Your task to perform on an android device: toggle data saver in the chrome app Image 0: 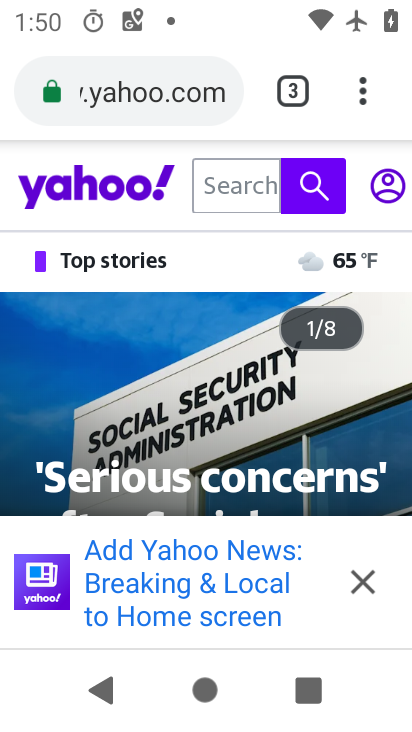
Step 0: press home button
Your task to perform on an android device: toggle data saver in the chrome app Image 1: 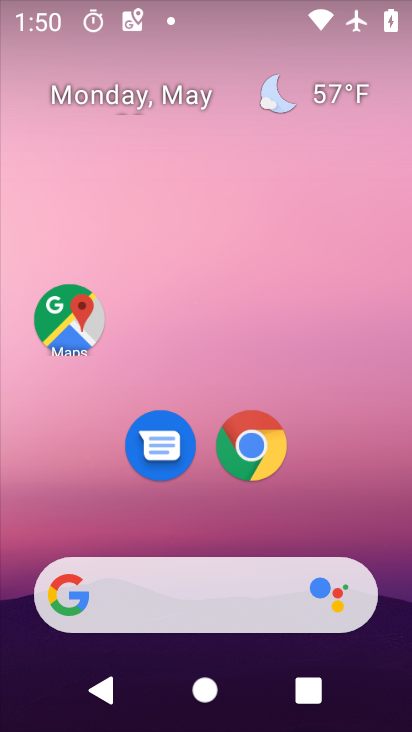
Step 1: click (248, 446)
Your task to perform on an android device: toggle data saver in the chrome app Image 2: 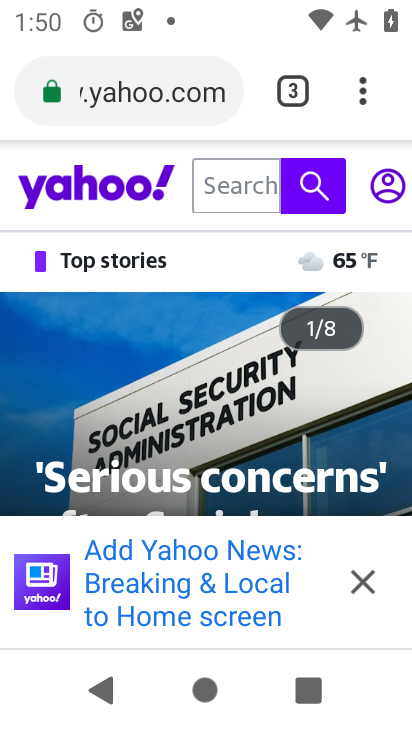
Step 2: click (352, 71)
Your task to perform on an android device: toggle data saver in the chrome app Image 3: 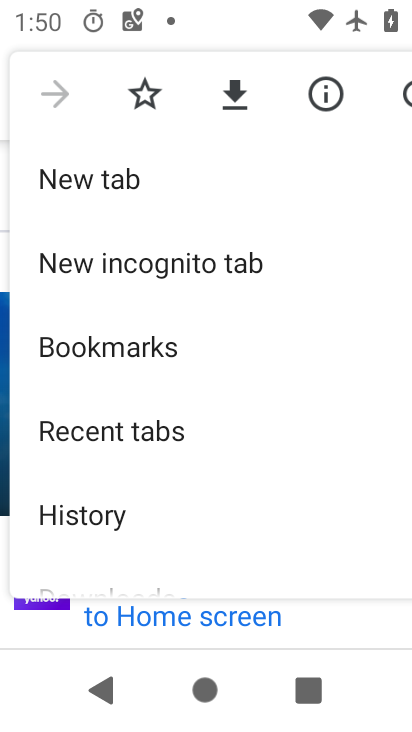
Step 3: drag from (270, 569) to (294, 82)
Your task to perform on an android device: toggle data saver in the chrome app Image 4: 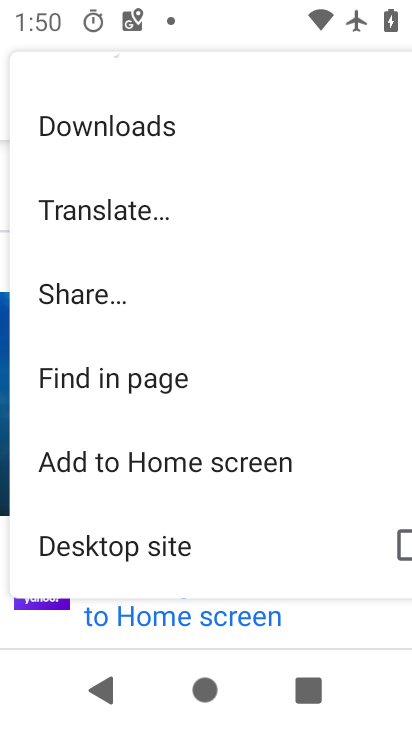
Step 4: drag from (222, 527) to (197, 204)
Your task to perform on an android device: toggle data saver in the chrome app Image 5: 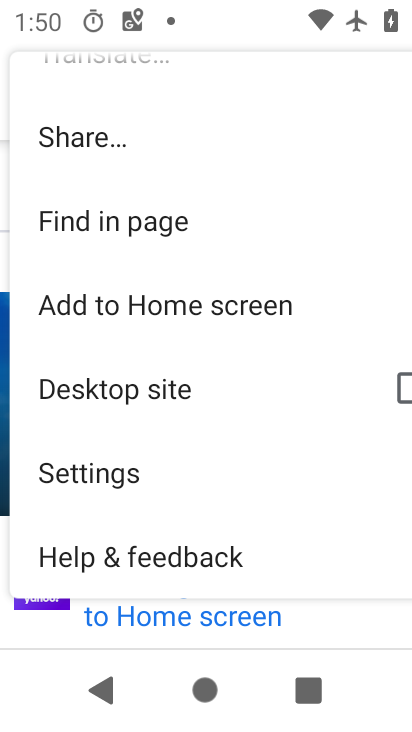
Step 5: click (125, 476)
Your task to perform on an android device: toggle data saver in the chrome app Image 6: 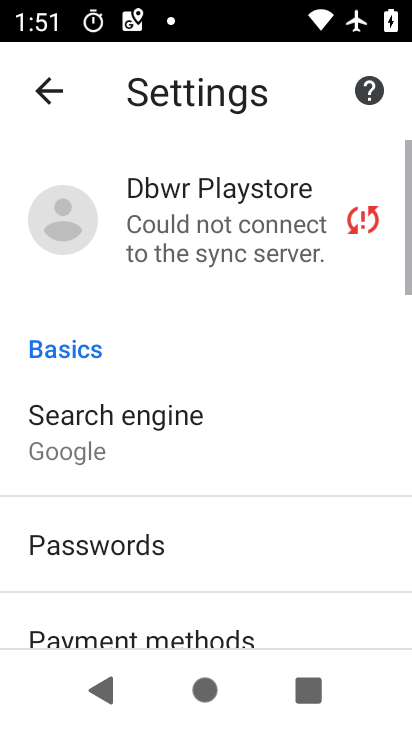
Step 6: drag from (206, 542) to (188, 118)
Your task to perform on an android device: toggle data saver in the chrome app Image 7: 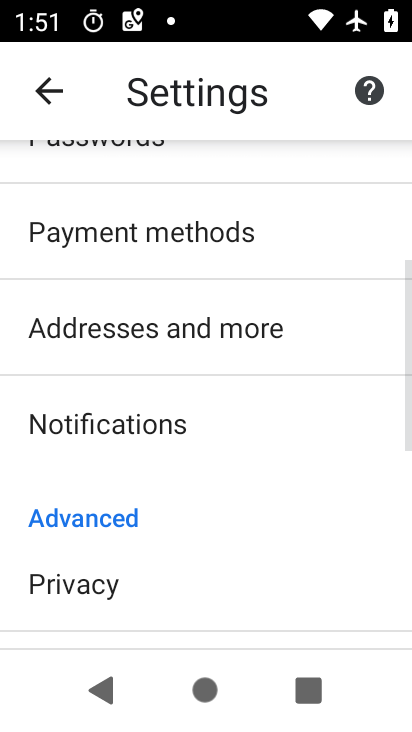
Step 7: drag from (186, 597) to (178, 138)
Your task to perform on an android device: toggle data saver in the chrome app Image 8: 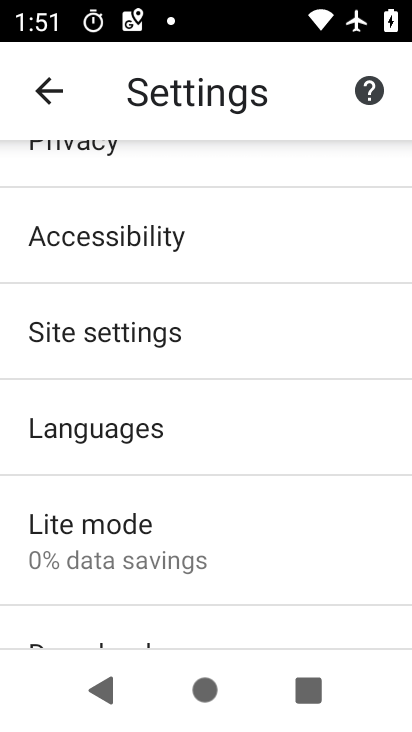
Step 8: click (100, 536)
Your task to perform on an android device: toggle data saver in the chrome app Image 9: 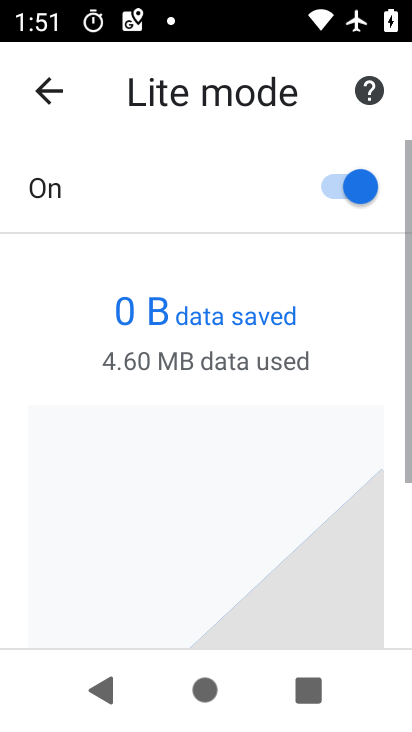
Step 9: click (362, 187)
Your task to perform on an android device: toggle data saver in the chrome app Image 10: 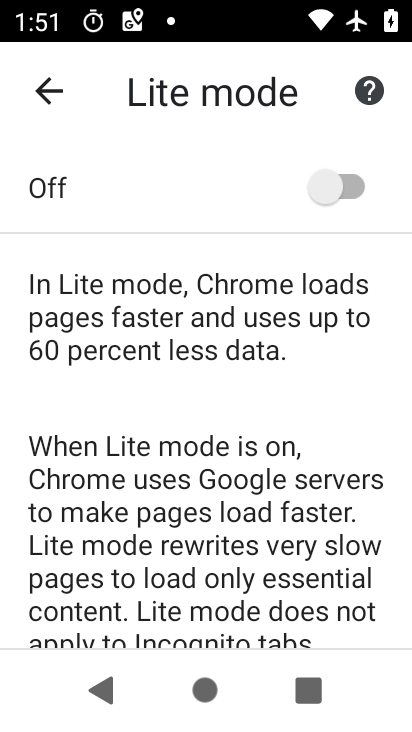
Step 10: task complete